Your task to perform on an android device: Go to calendar. Show me events next week Image 0: 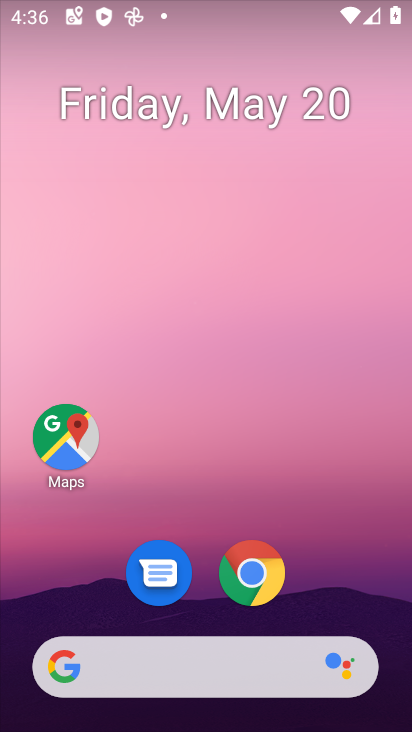
Step 0: drag from (383, 628) to (335, 62)
Your task to perform on an android device: Go to calendar. Show me events next week Image 1: 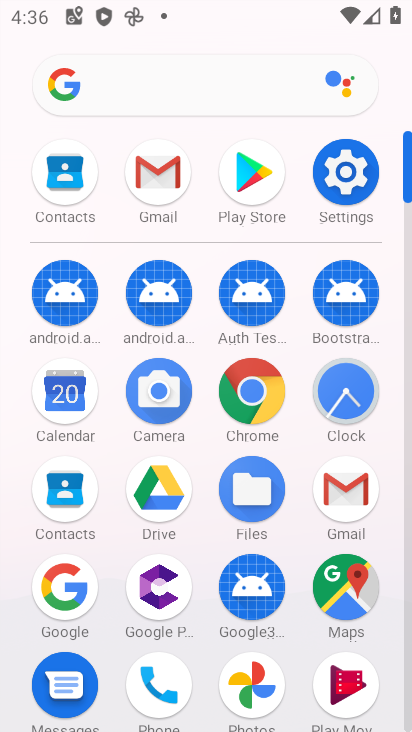
Step 1: click (407, 704)
Your task to perform on an android device: Go to calendar. Show me events next week Image 2: 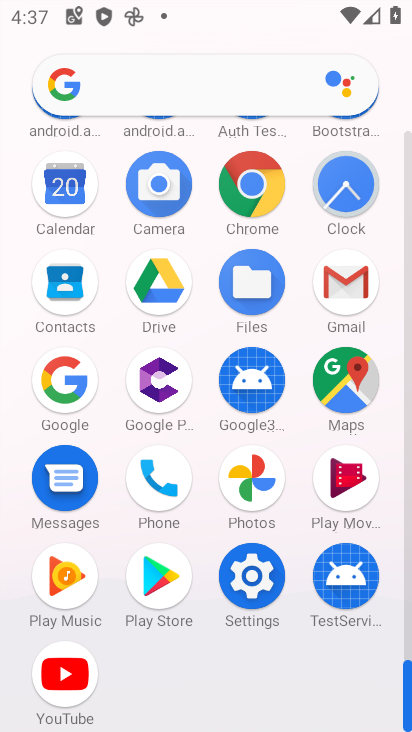
Step 2: click (63, 182)
Your task to perform on an android device: Go to calendar. Show me events next week Image 3: 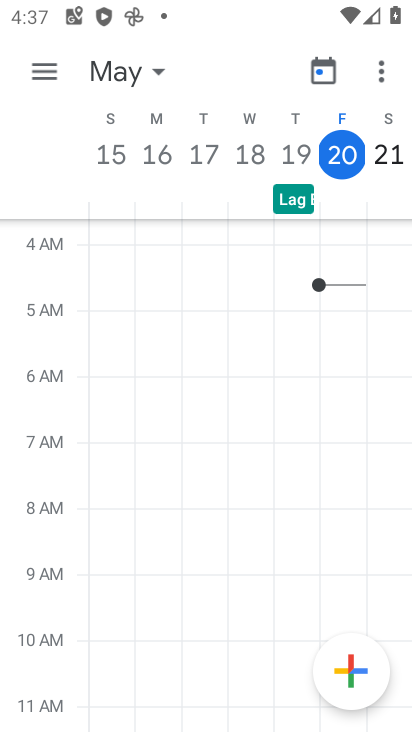
Step 3: click (30, 66)
Your task to perform on an android device: Go to calendar. Show me events next week Image 4: 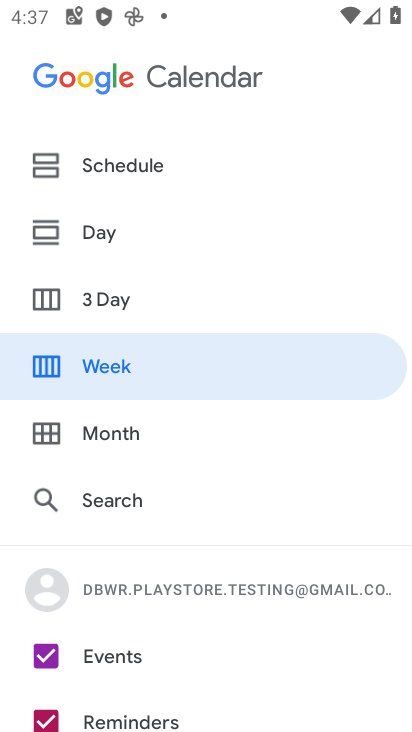
Step 4: click (152, 388)
Your task to perform on an android device: Go to calendar. Show me events next week Image 5: 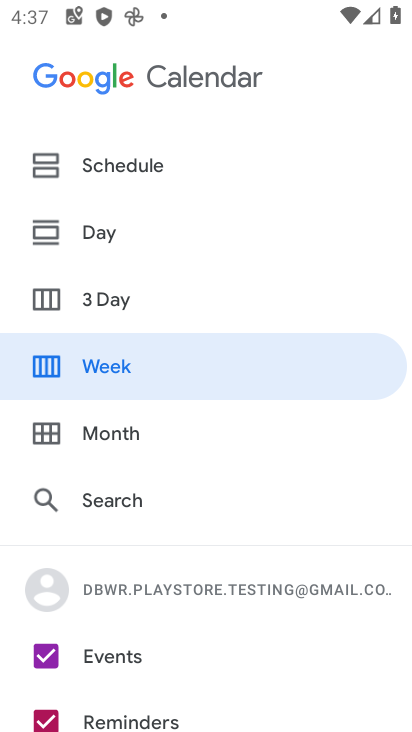
Step 5: click (127, 362)
Your task to perform on an android device: Go to calendar. Show me events next week Image 6: 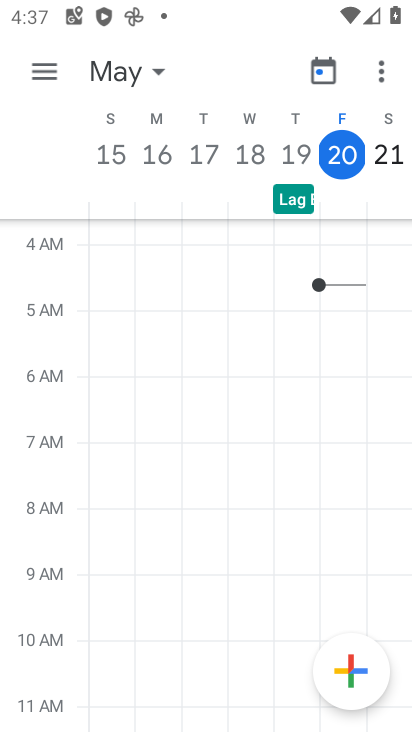
Step 6: click (156, 70)
Your task to perform on an android device: Go to calendar. Show me events next week Image 7: 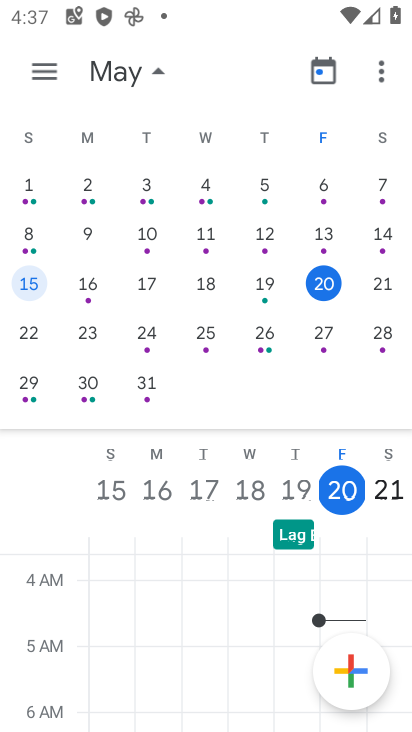
Step 7: click (34, 331)
Your task to perform on an android device: Go to calendar. Show me events next week Image 8: 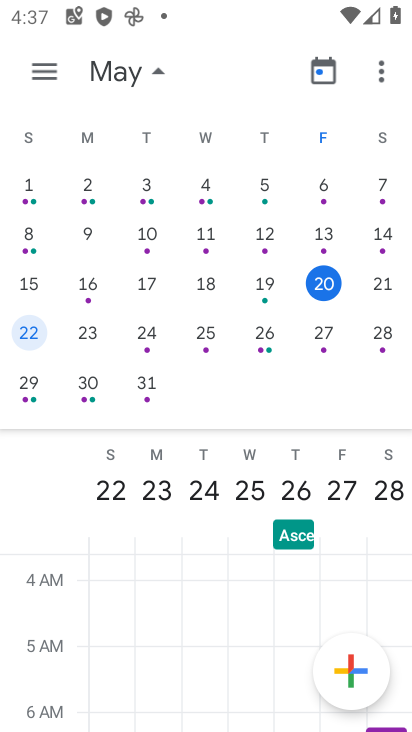
Step 8: task complete